Your task to perform on an android device: Open calendar and show me the third week of next month Image 0: 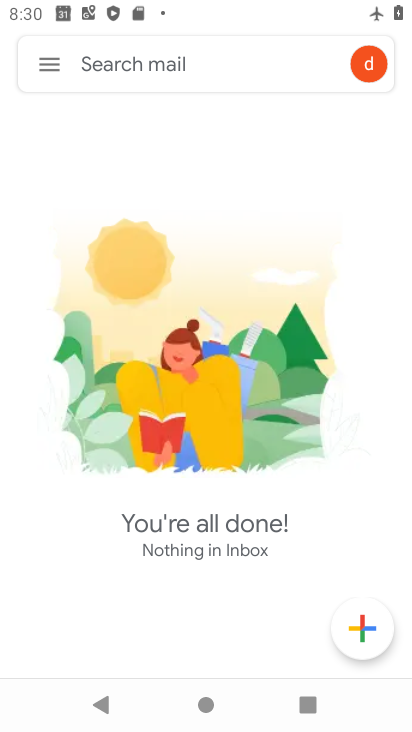
Step 0: press home button
Your task to perform on an android device: Open calendar and show me the third week of next month Image 1: 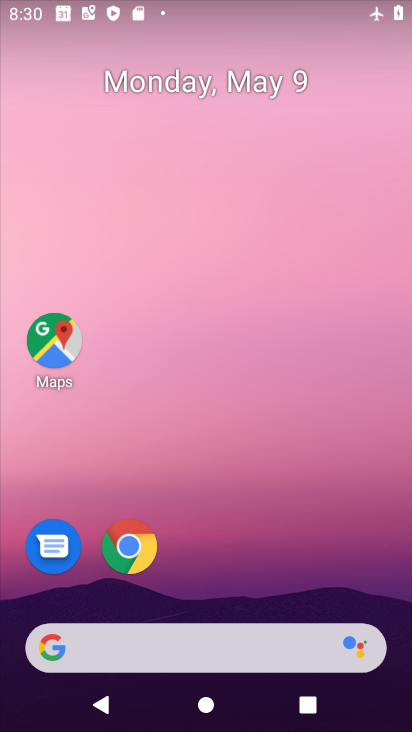
Step 1: drag from (263, 701) to (312, 114)
Your task to perform on an android device: Open calendar and show me the third week of next month Image 2: 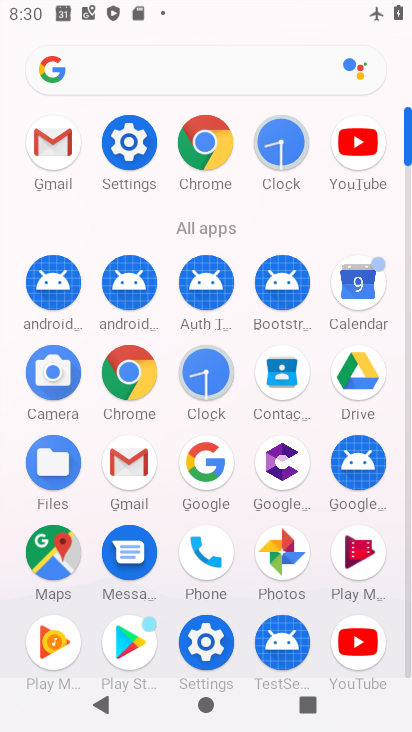
Step 2: click (362, 284)
Your task to perform on an android device: Open calendar and show me the third week of next month Image 3: 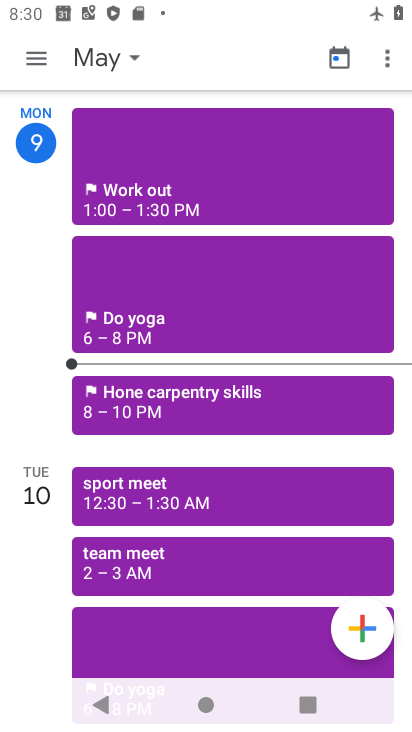
Step 3: click (119, 57)
Your task to perform on an android device: Open calendar and show me the third week of next month Image 4: 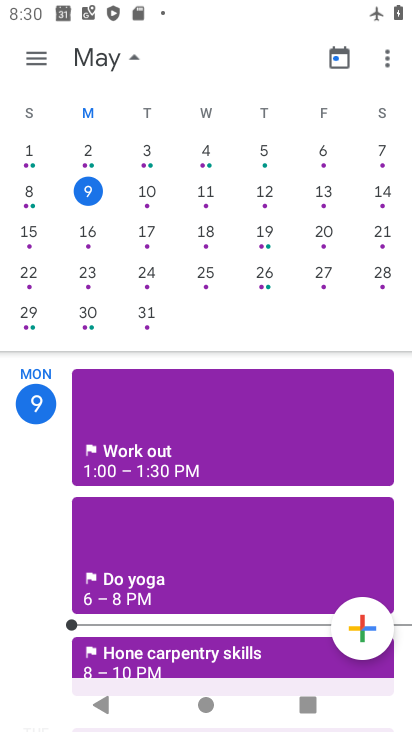
Step 4: drag from (372, 234) to (4, 319)
Your task to perform on an android device: Open calendar and show me the third week of next month Image 5: 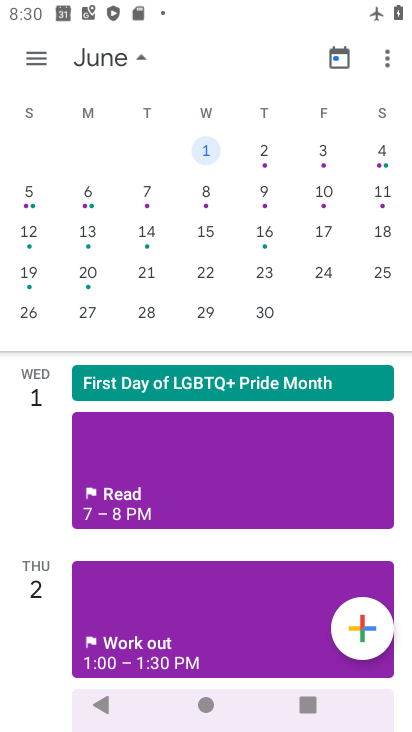
Step 5: click (25, 229)
Your task to perform on an android device: Open calendar and show me the third week of next month Image 6: 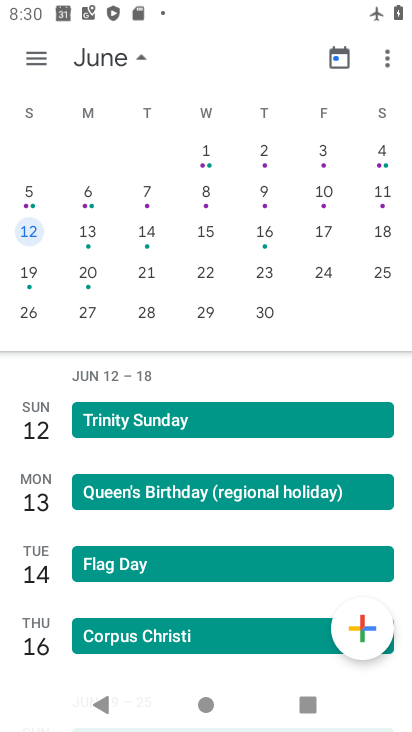
Step 6: task complete